Your task to perform on an android device: Go to Google maps Image 0: 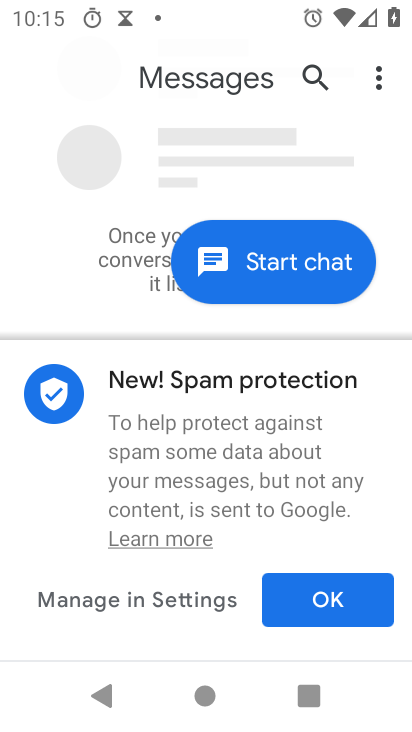
Step 0: press home button
Your task to perform on an android device: Go to Google maps Image 1: 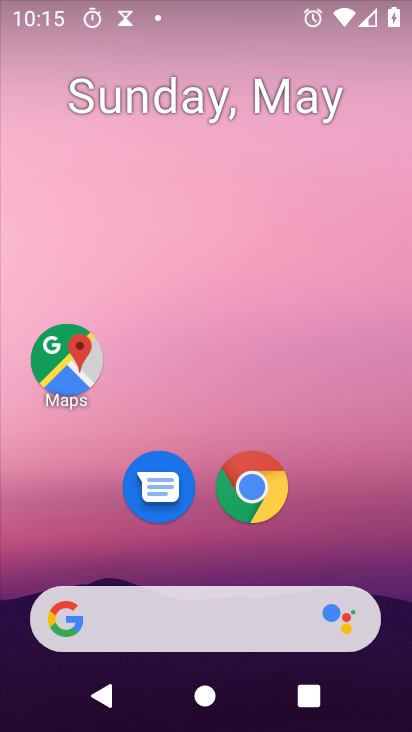
Step 1: drag from (348, 499) to (269, 0)
Your task to perform on an android device: Go to Google maps Image 2: 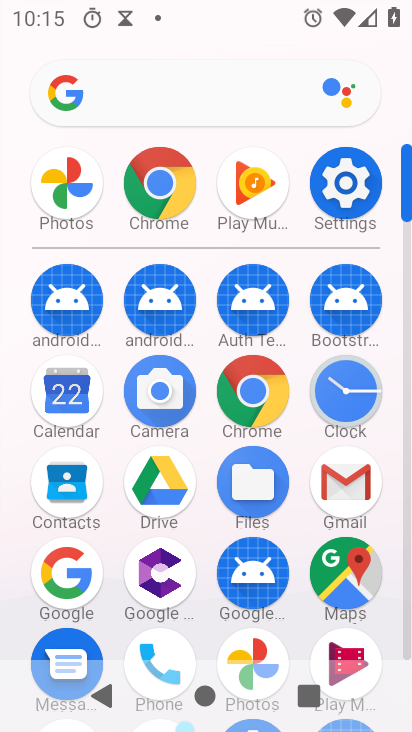
Step 2: click (349, 587)
Your task to perform on an android device: Go to Google maps Image 3: 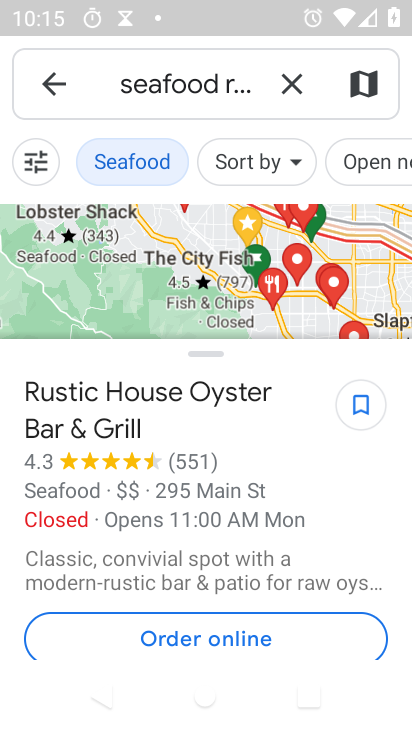
Step 3: click (291, 91)
Your task to perform on an android device: Go to Google maps Image 4: 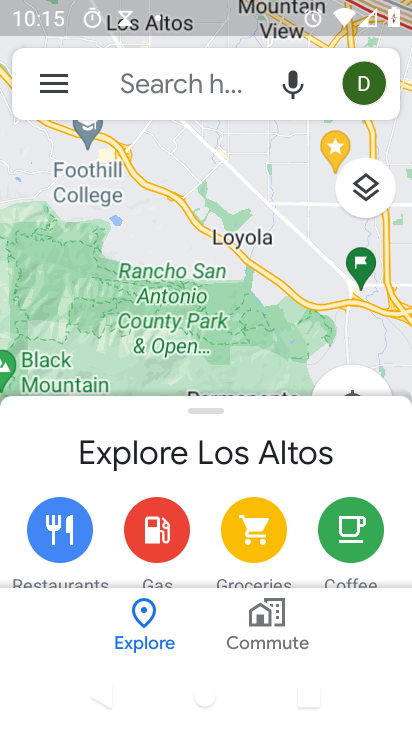
Step 4: task complete